Your task to perform on an android device: turn off airplane mode Image 0: 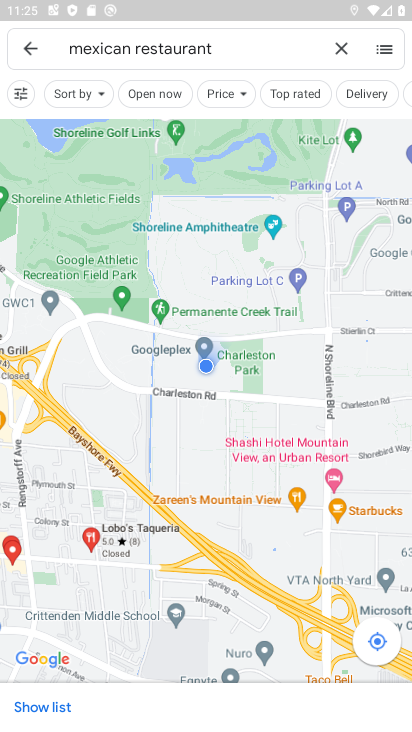
Step 0: press home button
Your task to perform on an android device: turn off airplane mode Image 1: 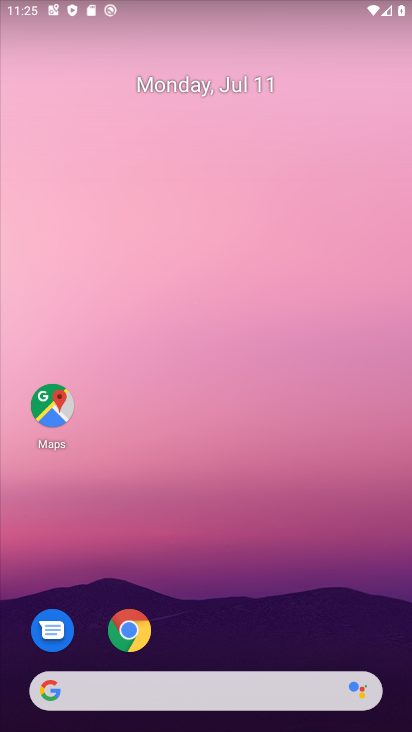
Step 1: task complete